Your task to perform on an android device: toggle notification dots Image 0: 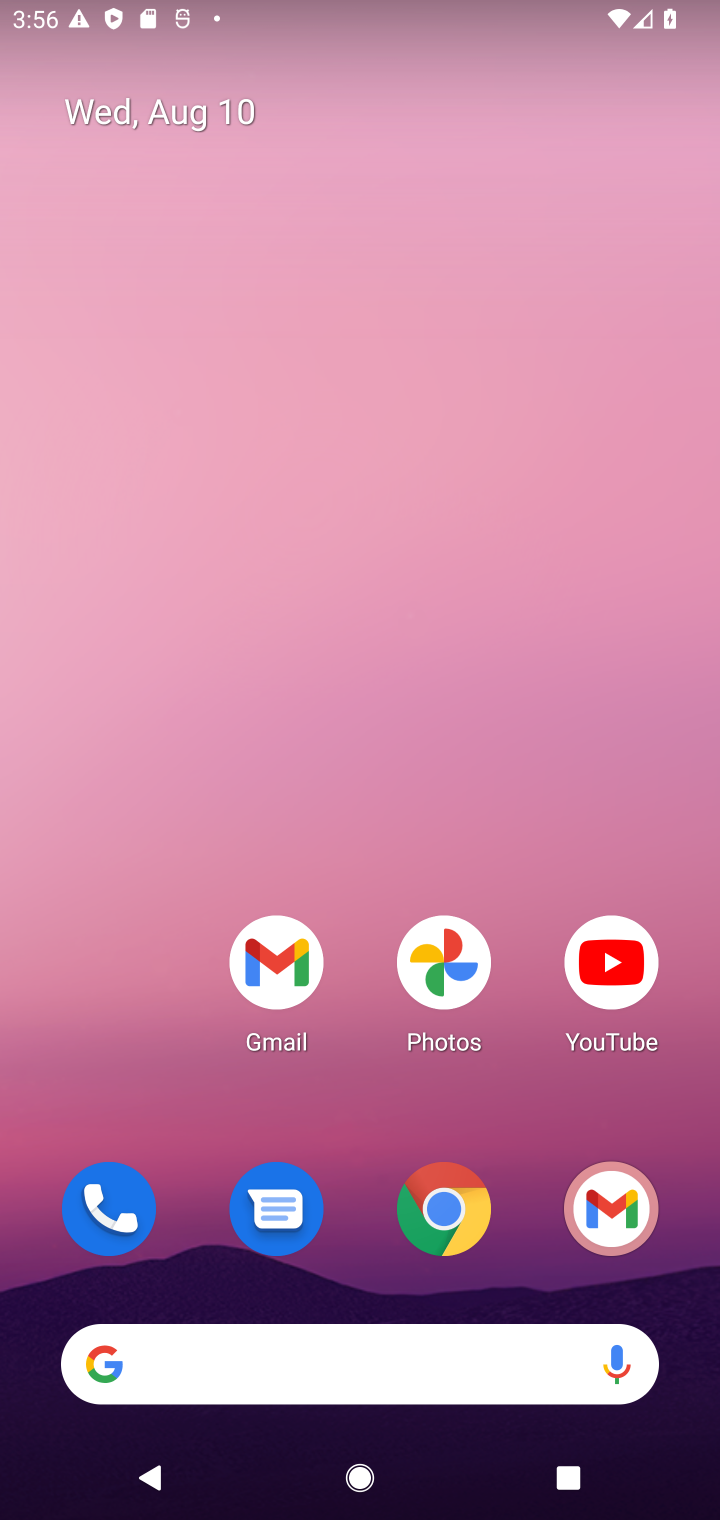
Step 0: drag from (389, 860) to (382, 27)
Your task to perform on an android device: toggle notification dots Image 1: 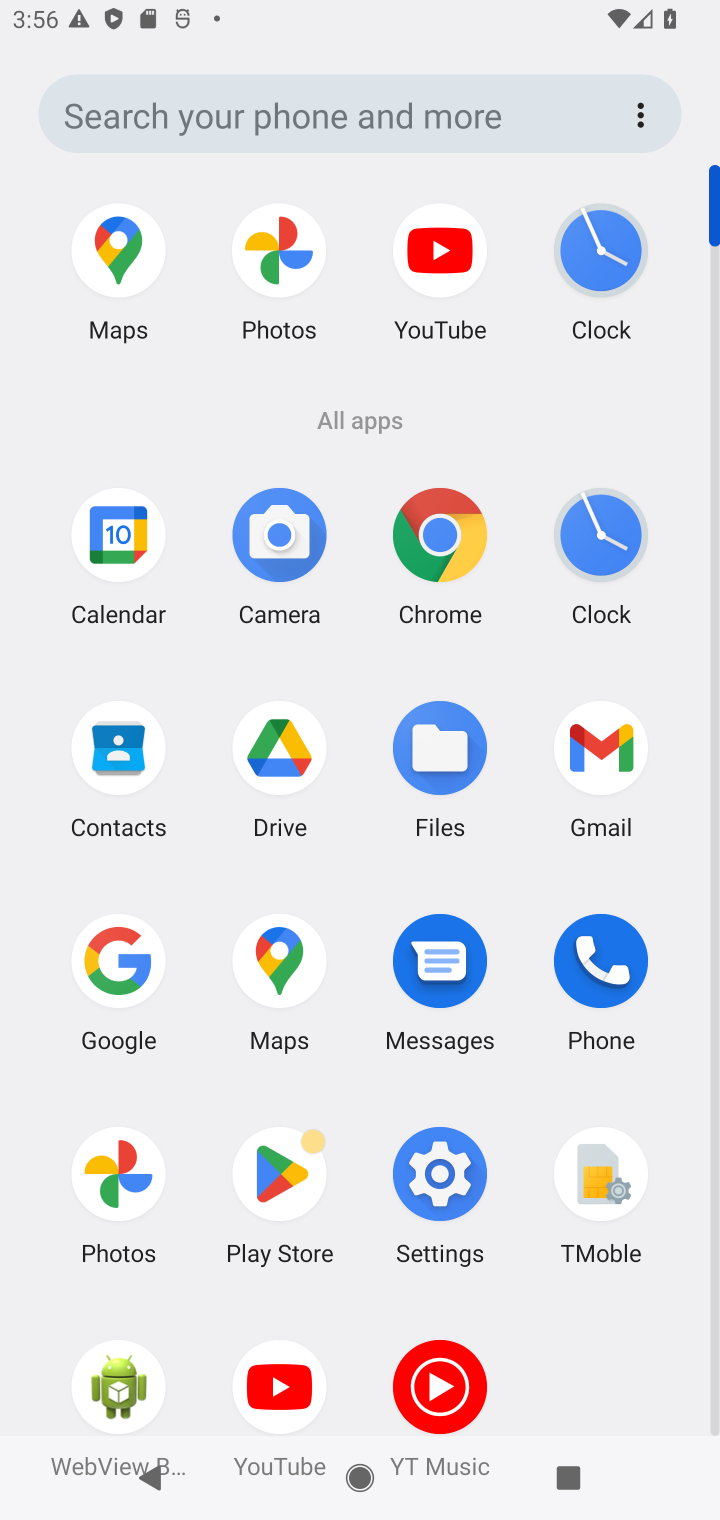
Step 1: click (450, 1196)
Your task to perform on an android device: toggle notification dots Image 2: 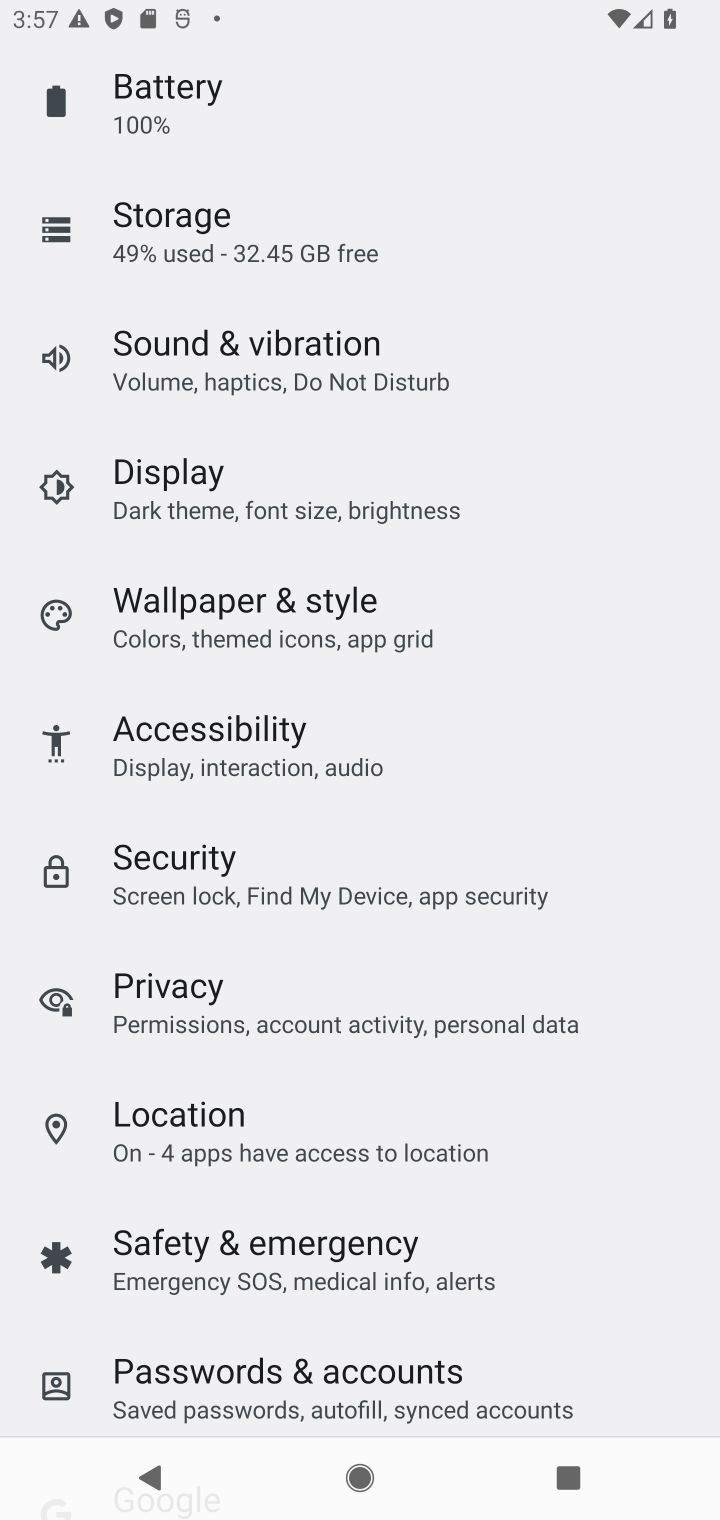
Step 2: drag from (551, 232) to (525, 1083)
Your task to perform on an android device: toggle notification dots Image 3: 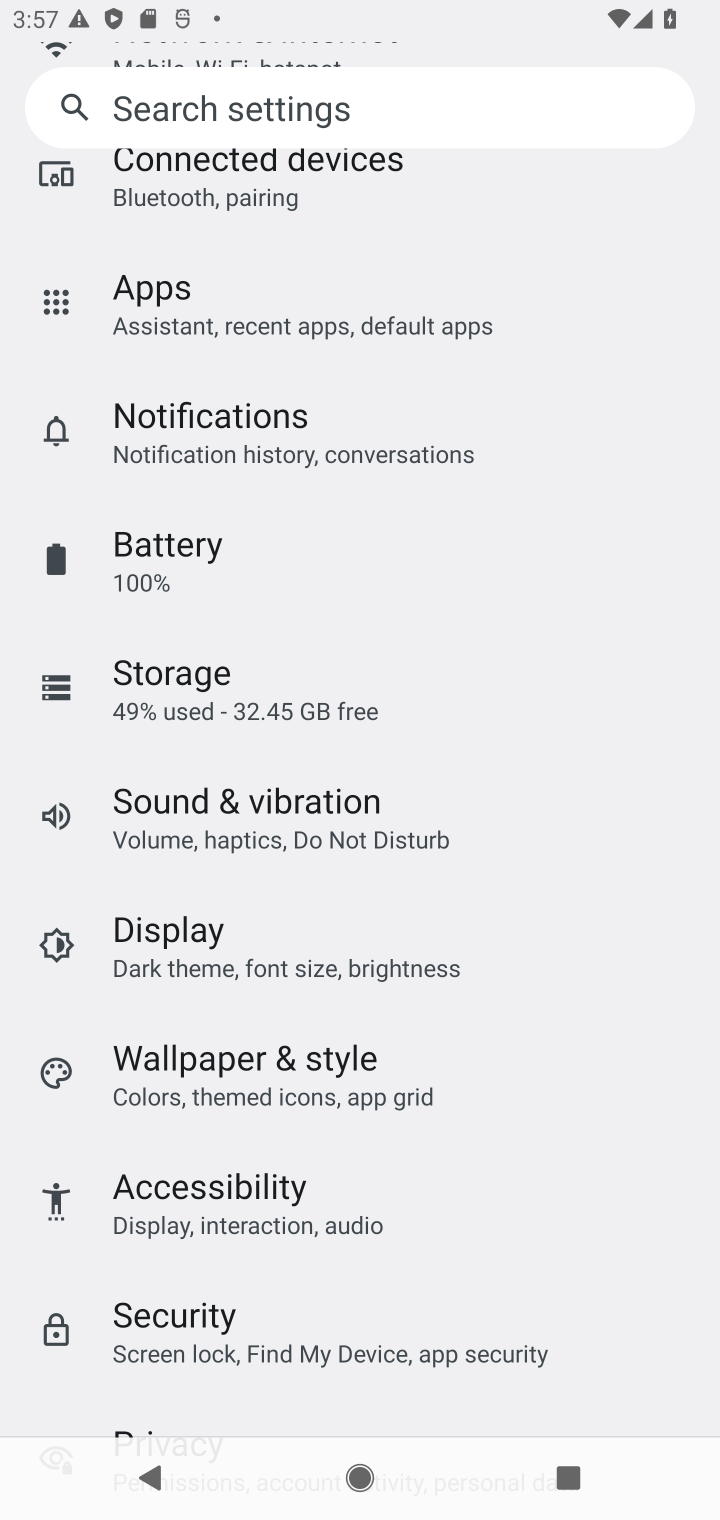
Step 3: click (286, 373)
Your task to perform on an android device: toggle notification dots Image 4: 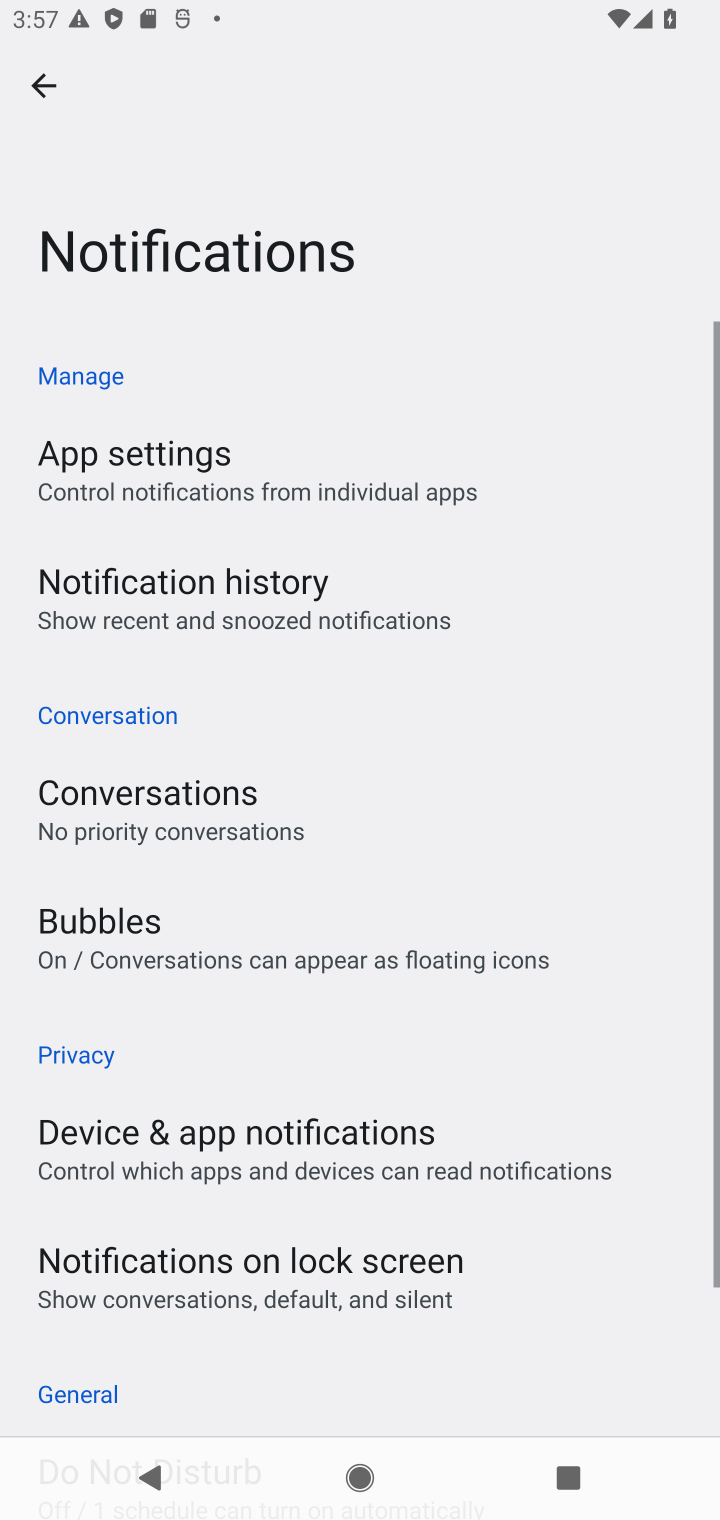
Step 4: click (244, 466)
Your task to perform on an android device: toggle notification dots Image 5: 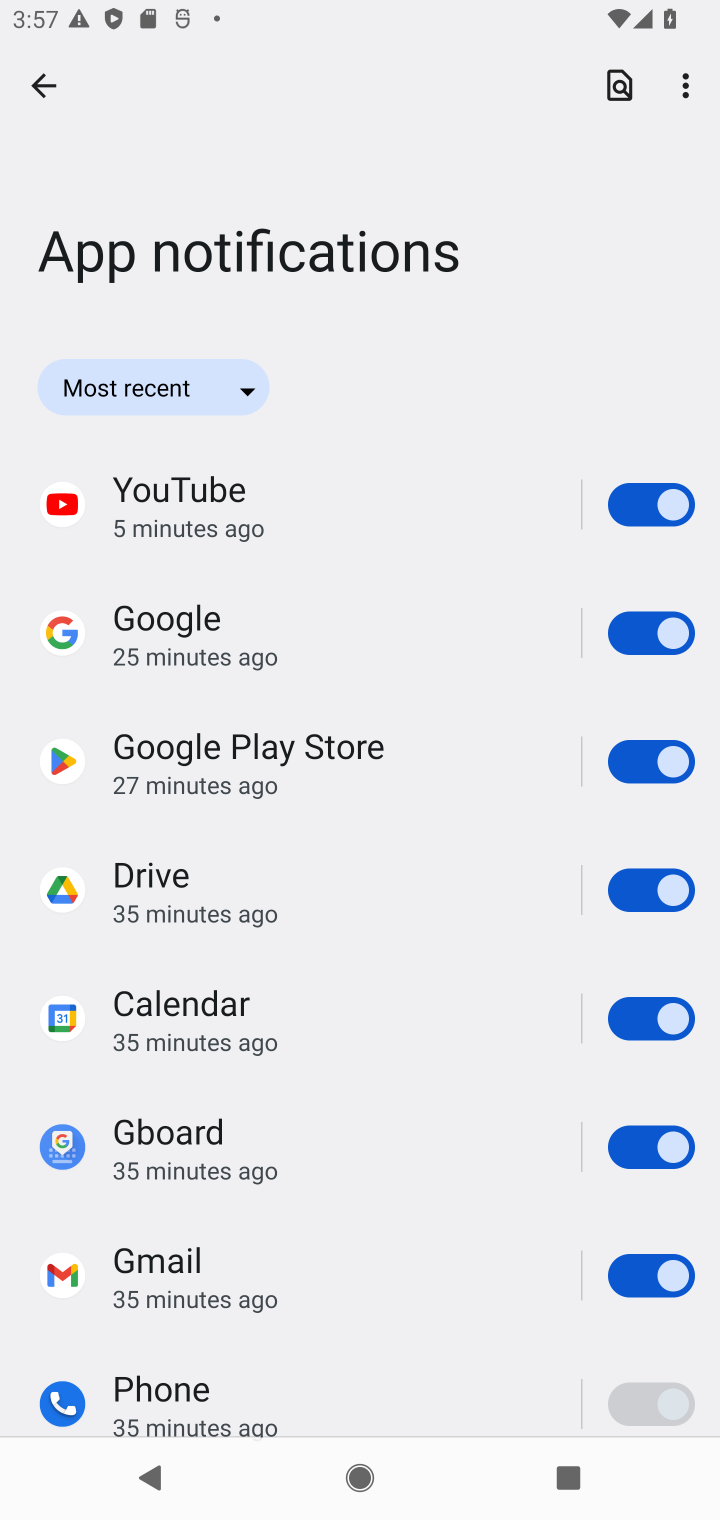
Step 5: click (60, 96)
Your task to perform on an android device: toggle notification dots Image 6: 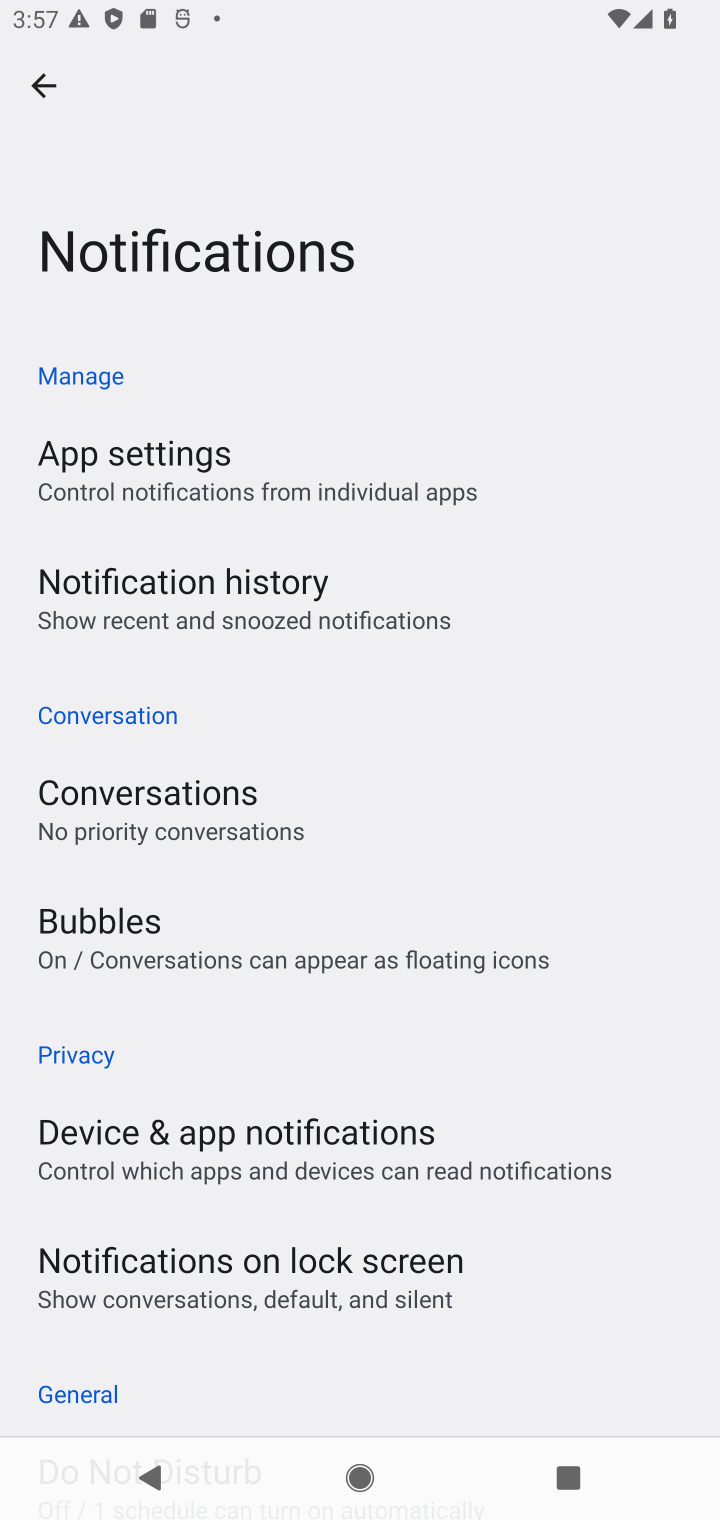
Step 6: drag from (267, 1350) to (362, 484)
Your task to perform on an android device: toggle notification dots Image 7: 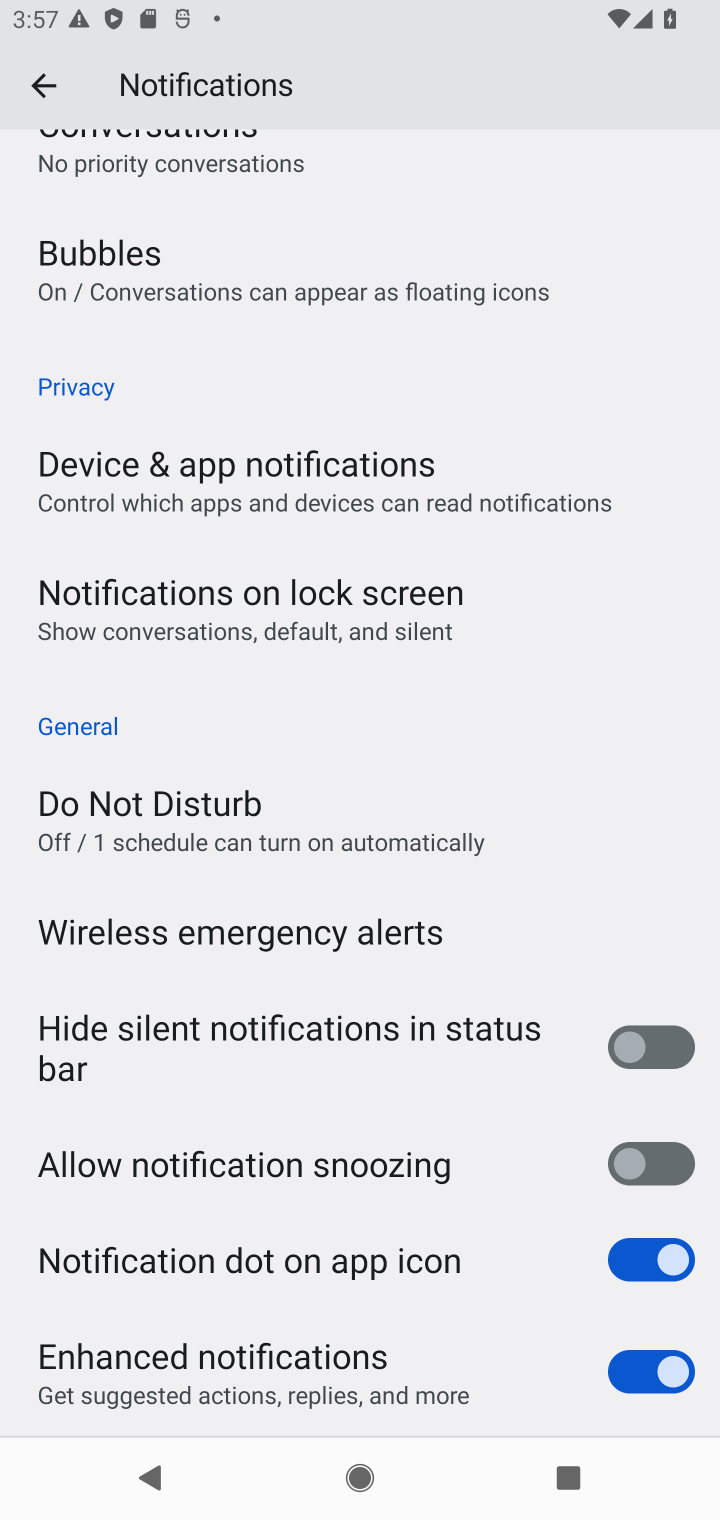
Step 7: click (244, 480)
Your task to perform on an android device: toggle notification dots Image 8: 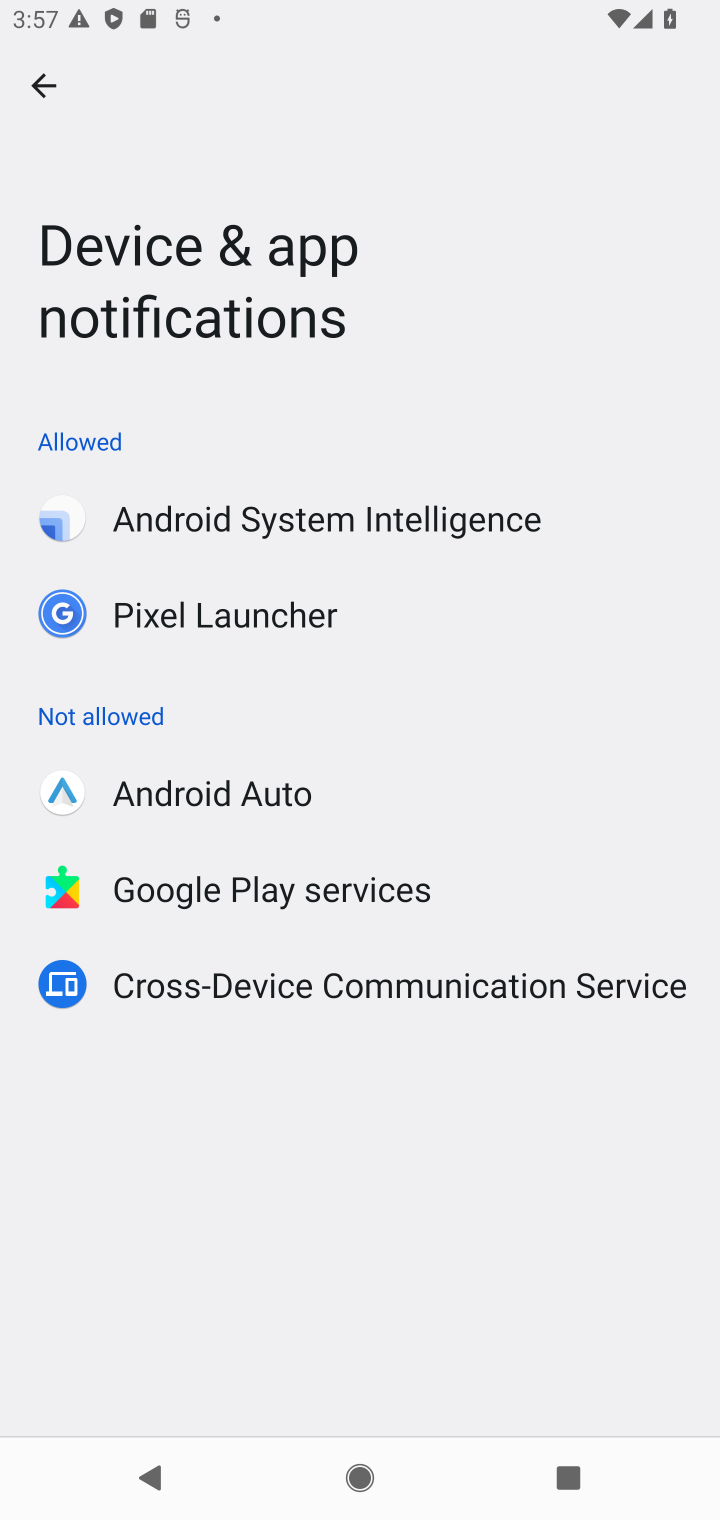
Step 8: click (49, 91)
Your task to perform on an android device: toggle notification dots Image 9: 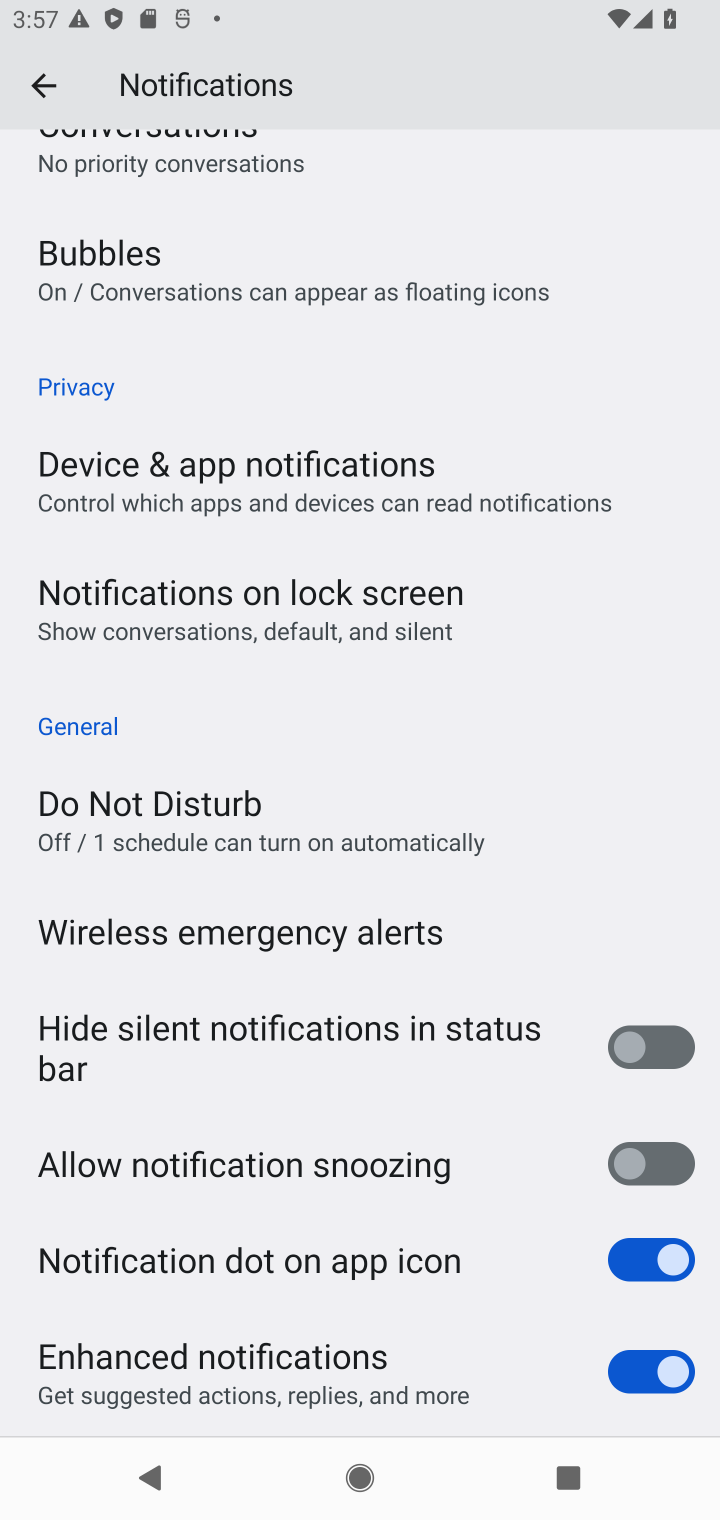
Step 9: click (649, 1254)
Your task to perform on an android device: toggle notification dots Image 10: 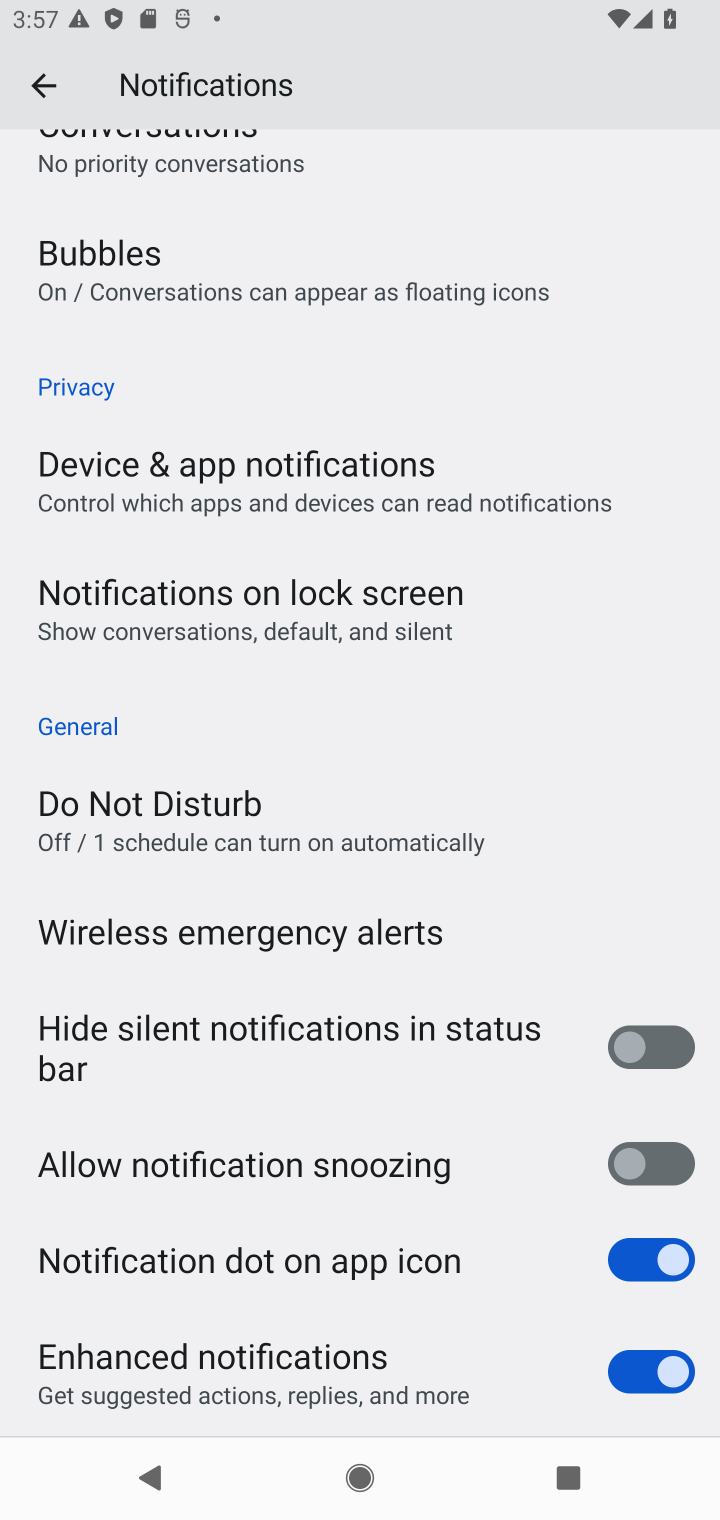
Step 10: click (649, 1254)
Your task to perform on an android device: toggle notification dots Image 11: 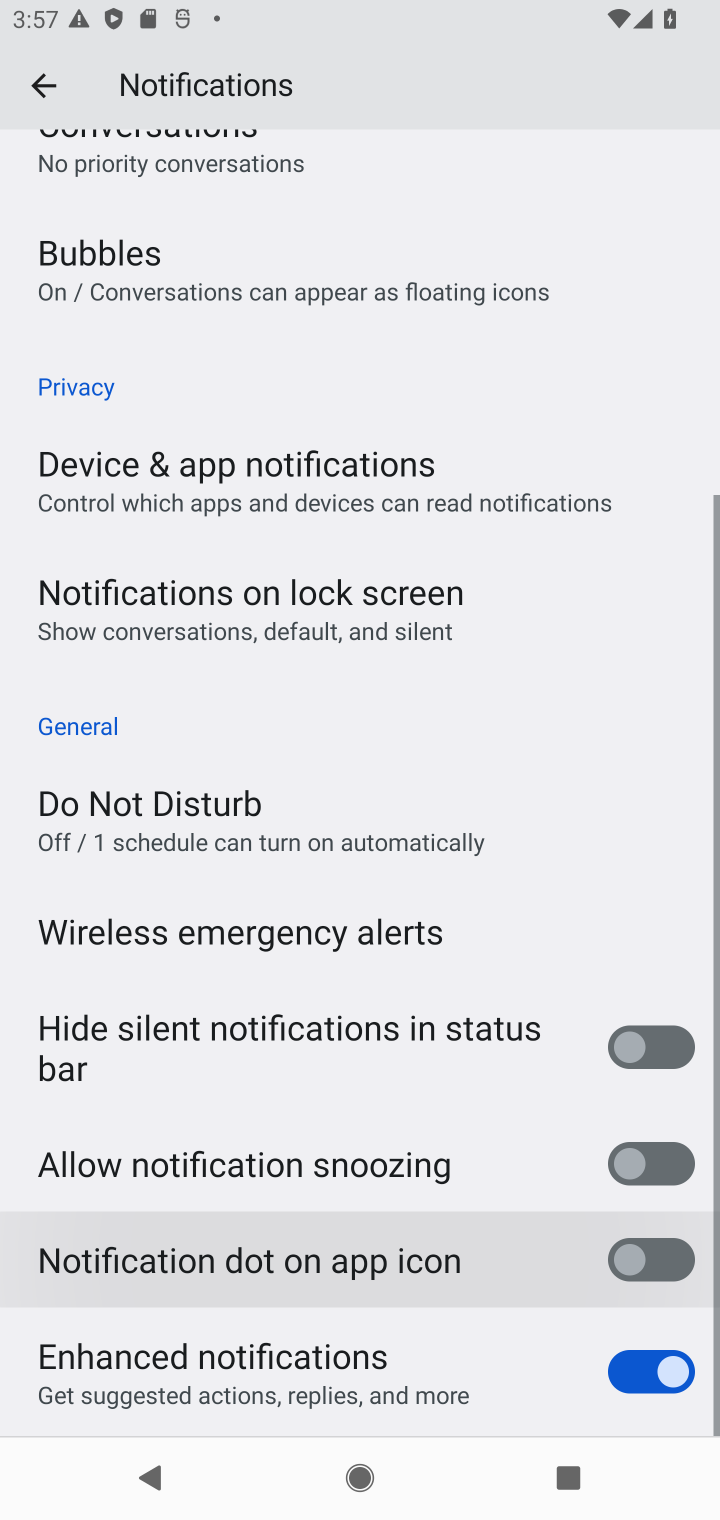
Step 11: click (649, 1254)
Your task to perform on an android device: toggle notification dots Image 12: 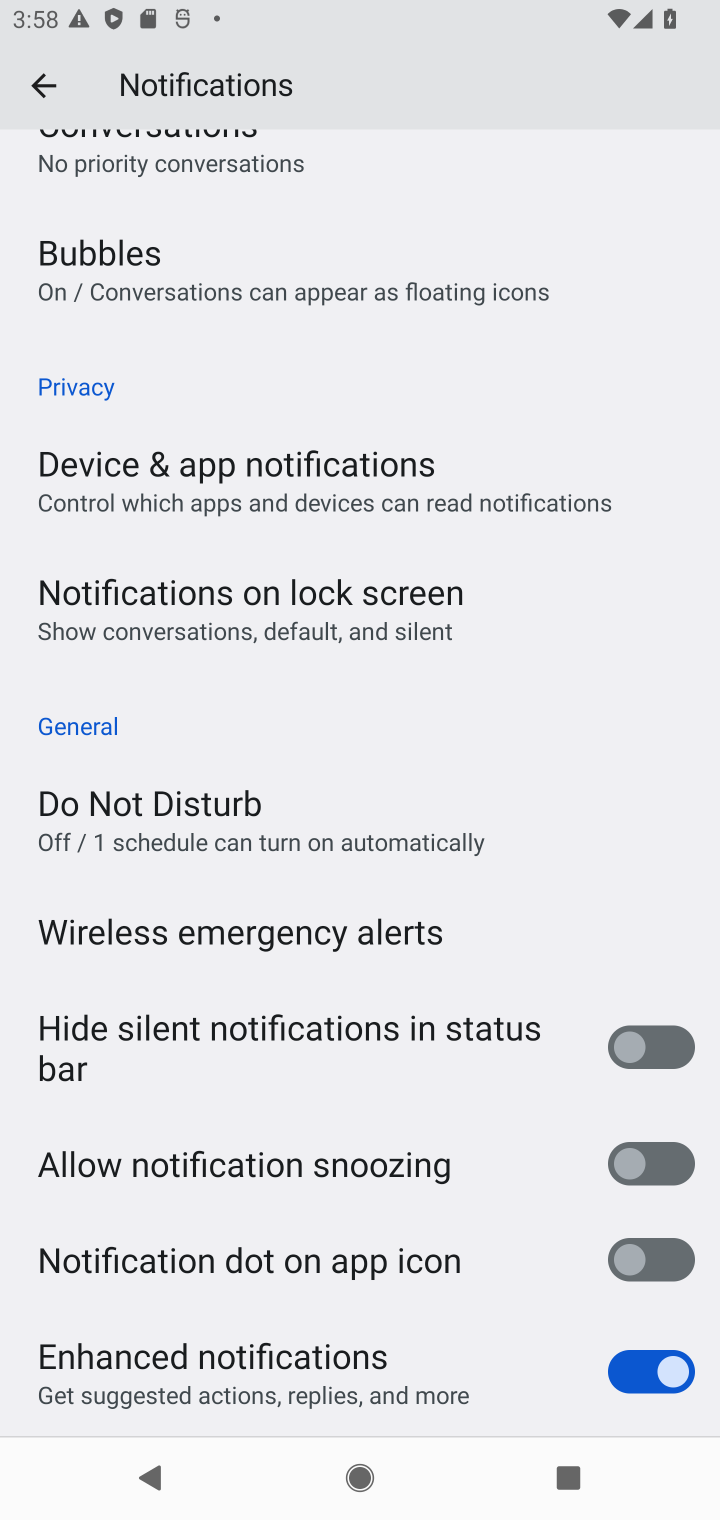
Step 12: task complete